Your task to perform on an android device: See recent photos Image 0: 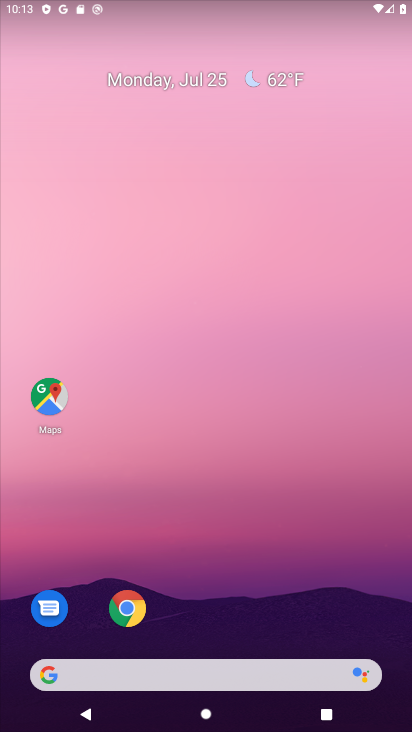
Step 0: drag from (261, 617) to (348, 102)
Your task to perform on an android device: See recent photos Image 1: 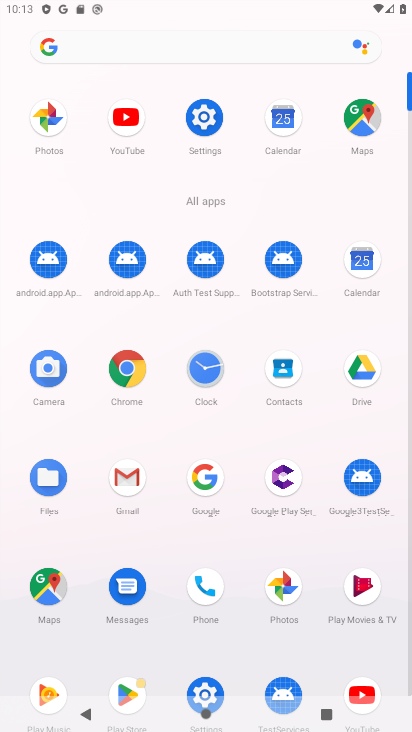
Step 1: click (288, 582)
Your task to perform on an android device: See recent photos Image 2: 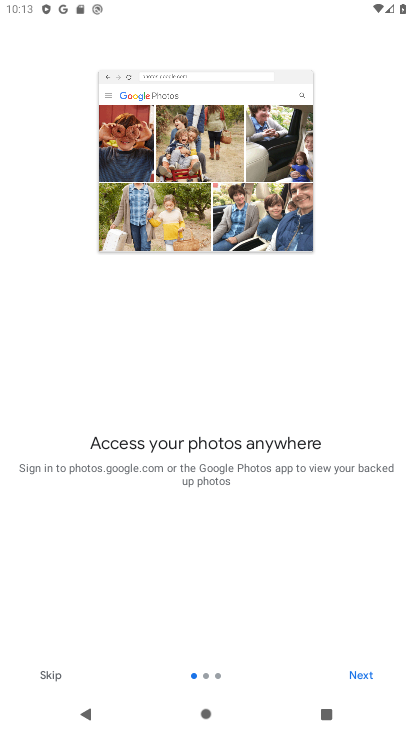
Step 2: click (369, 674)
Your task to perform on an android device: See recent photos Image 3: 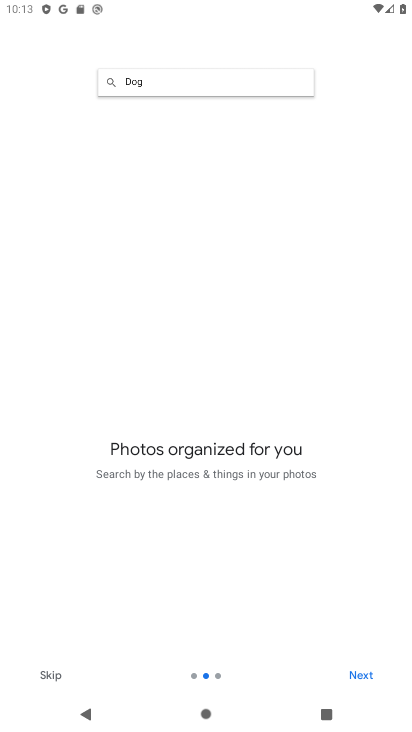
Step 3: click (369, 674)
Your task to perform on an android device: See recent photos Image 4: 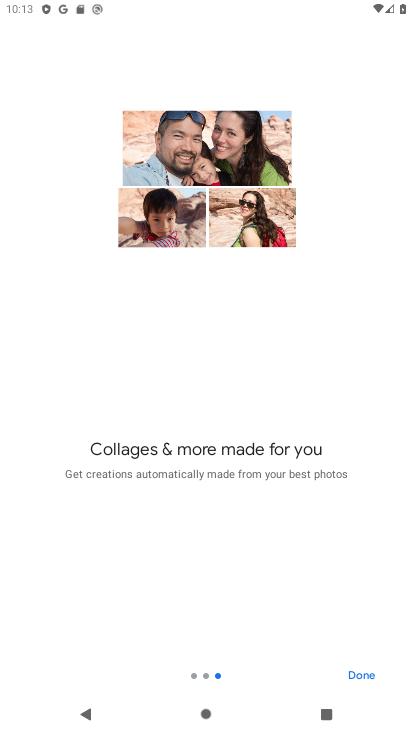
Step 4: click (369, 674)
Your task to perform on an android device: See recent photos Image 5: 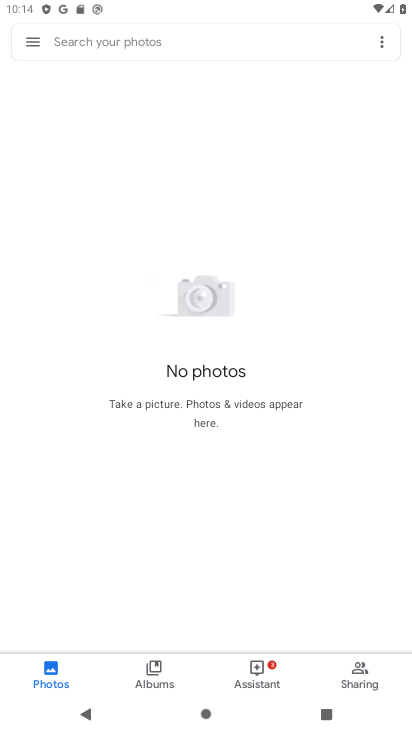
Step 5: task complete